Your task to perform on an android device: Open Chrome and go to settings Image 0: 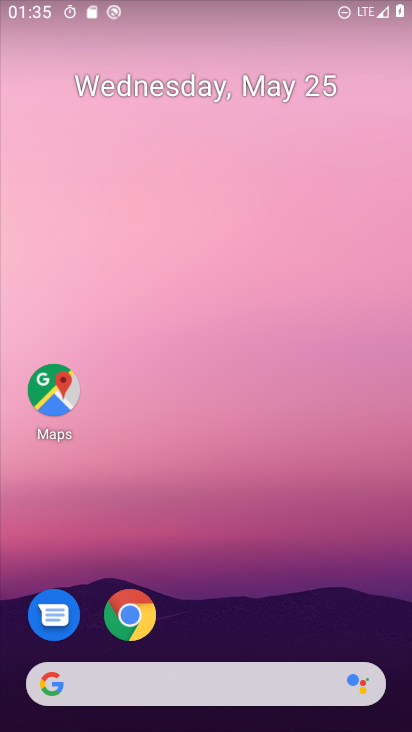
Step 0: press home button
Your task to perform on an android device: Open Chrome and go to settings Image 1: 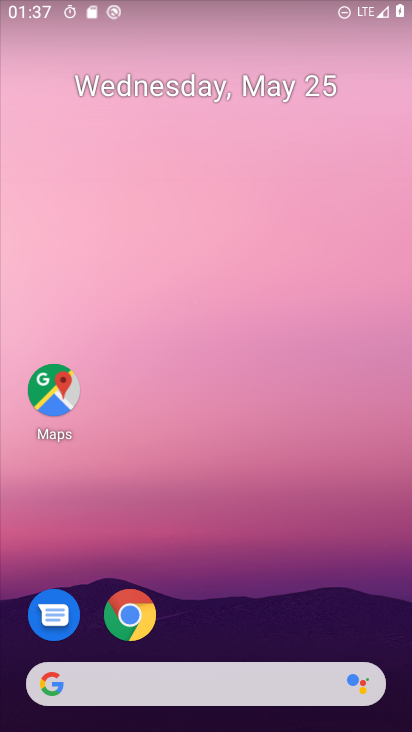
Step 1: drag from (212, 697) to (401, 26)
Your task to perform on an android device: Open Chrome and go to settings Image 2: 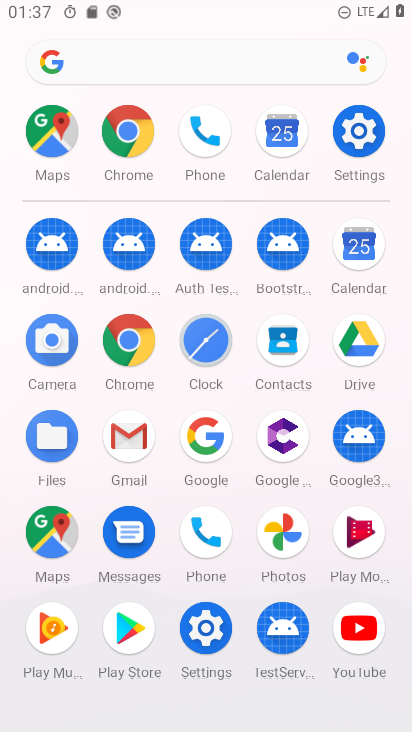
Step 2: click (360, 126)
Your task to perform on an android device: Open Chrome and go to settings Image 3: 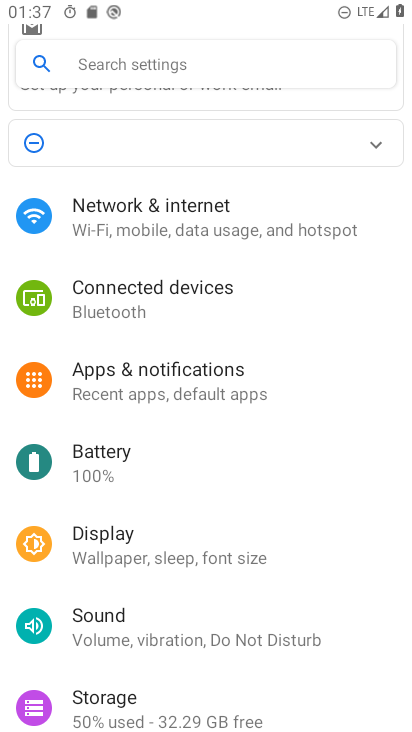
Step 3: press home button
Your task to perform on an android device: Open Chrome and go to settings Image 4: 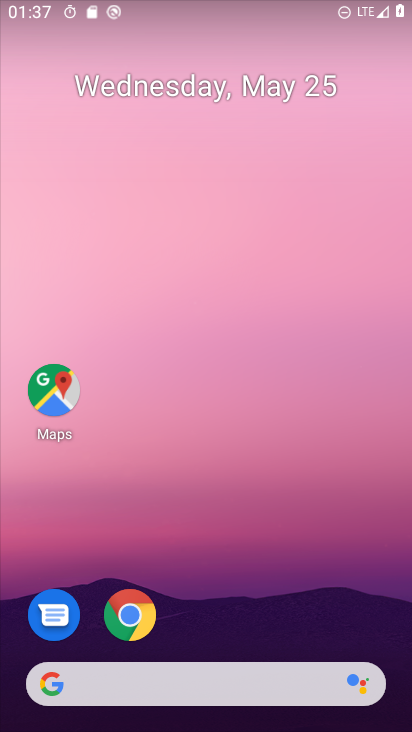
Step 4: drag from (228, 617) to (334, 6)
Your task to perform on an android device: Open Chrome and go to settings Image 5: 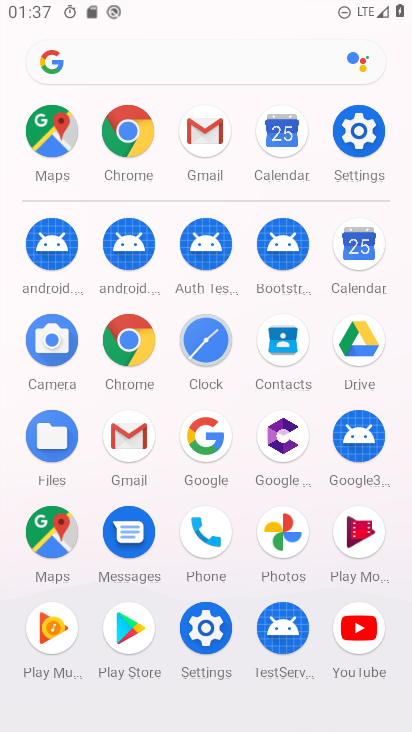
Step 5: click (128, 141)
Your task to perform on an android device: Open Chrome and go to settings Image 6: 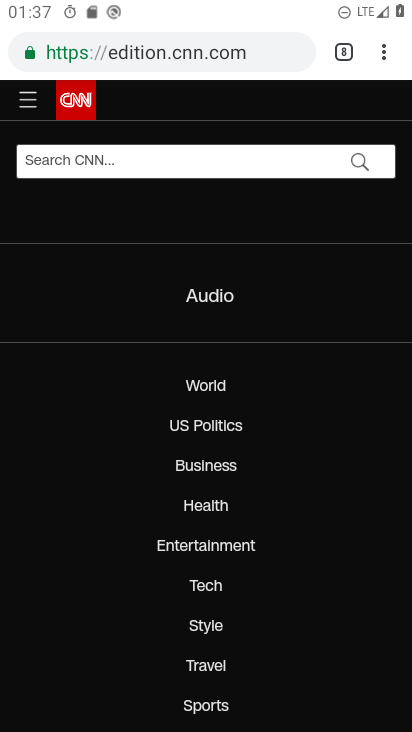
Step 6: click (382, 55)
Your task to perform on an android device: Open Chrome and go to settings Image 7: 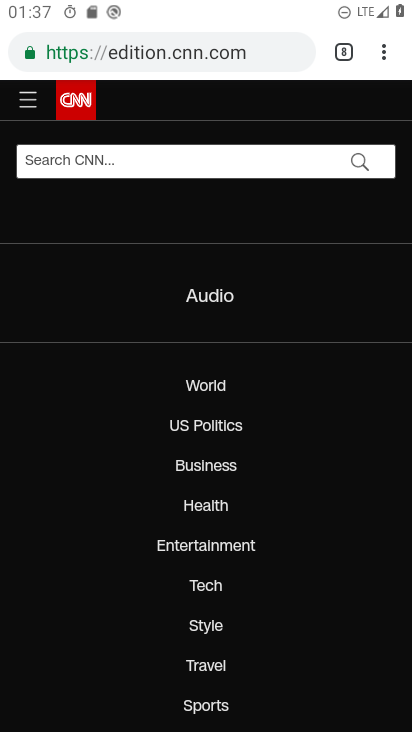
Step 7: click (386, 56)
Your task to perform on an android device: Open Chrome and go to settings Image 8: 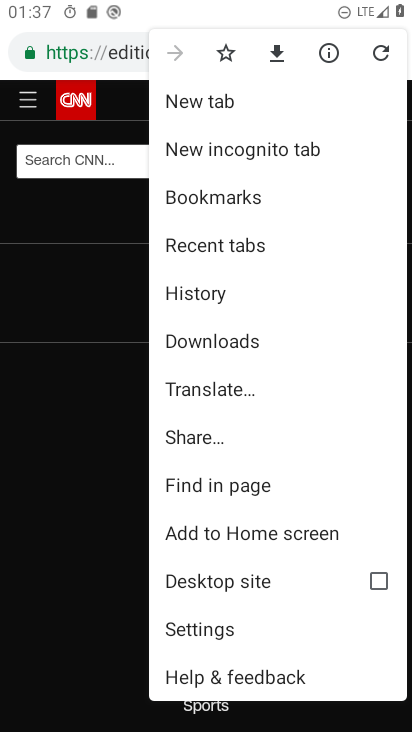
Step 8: click (211, 636)
Your task to perform on an android device: Open Chrome and go to settings Image 9: 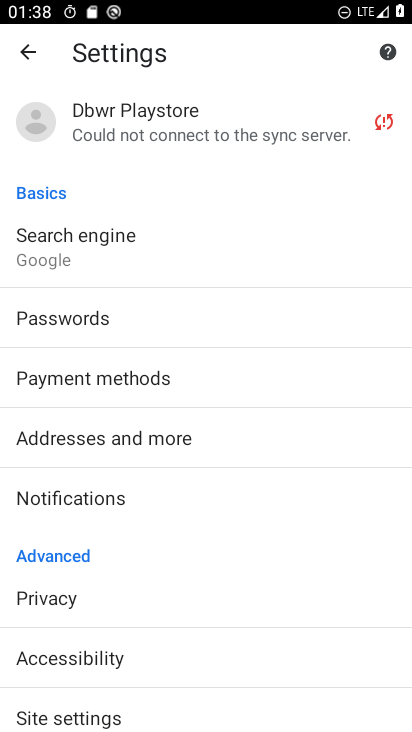
Step 9: task complete